Your task to perform on an android device: Go to Android settings Image 0: 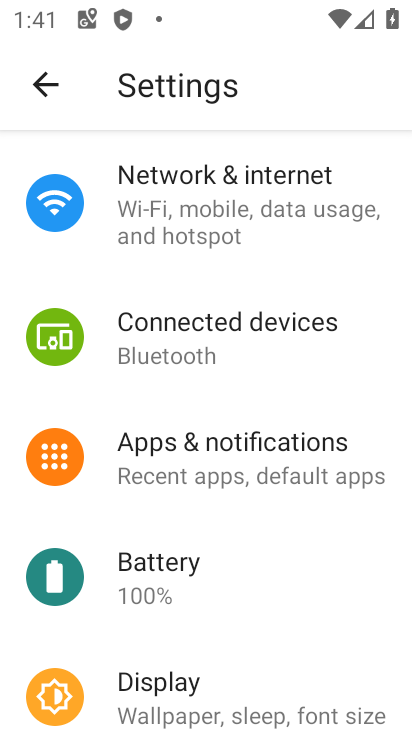
Step 0: drag from (190, 679) to (301, 184)
Your task to perform on an android device: Go to Android settings Image 1: 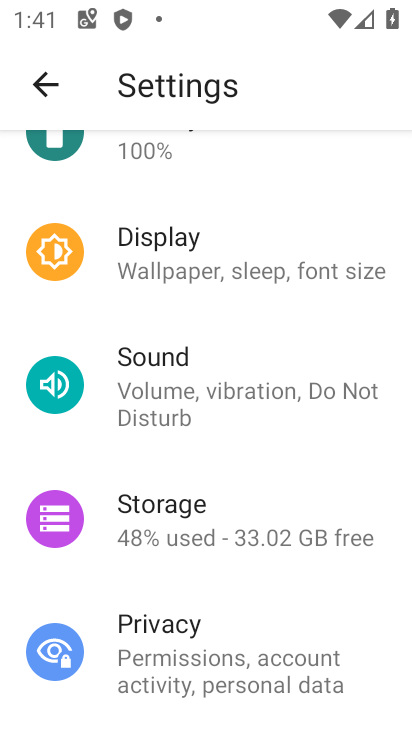
Step 1: drag from (226, 633) to (240, 319)
Your task to perform on an android device: Go to Android settings Image 2: 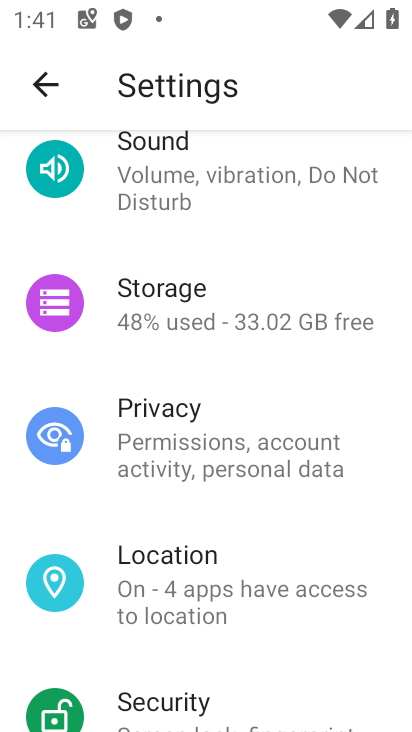
Step 2: drag from (242, 558) to (305, 42)
Your task to perform on an android device: Go to Android settings Image 3: 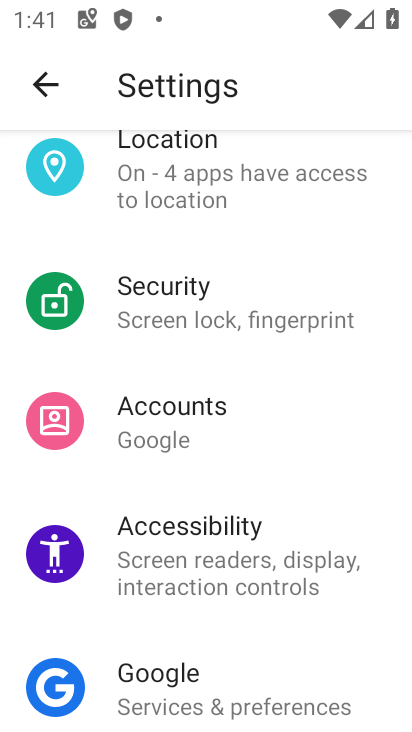
Step 3: drag from (217, 648) to (235, 239)
Your task to perform on an android device: Go to Android settings Image 4: 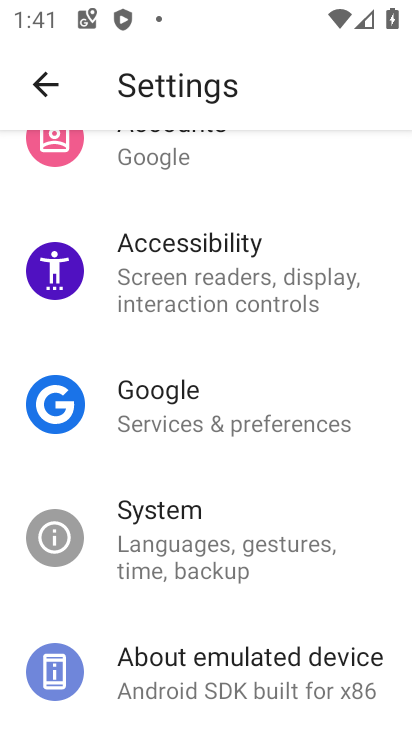
Step 4: drag from (211, 653) to (277, 272)
Your task to perform on an android device: Go to Android settings Image 5: 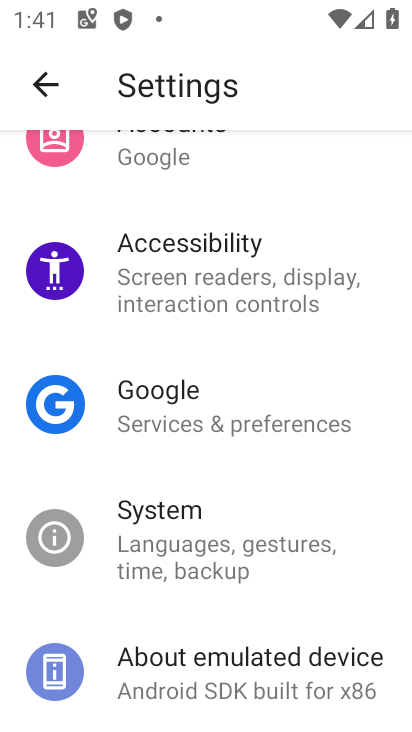
Step 5: click (208, 663)
Your task to perform on an android device: Go to Android settings Image 6: 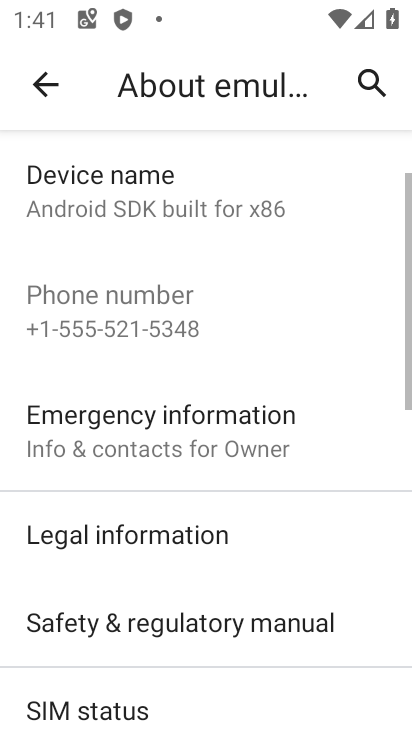
Step 6: drag from (210, 661) to (289, 284)
Your task to perform on an android device: Go to Android settings Image 7: 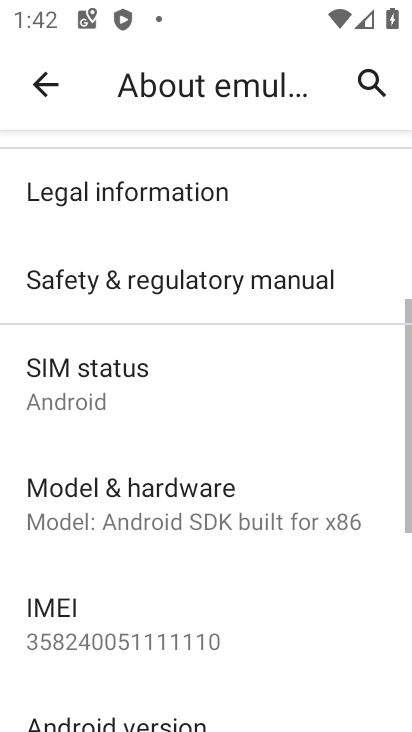
Step 7: drag from (195, 534) to (328, 150)
Your task to perform on an android device: Go to Android settings Image 8: 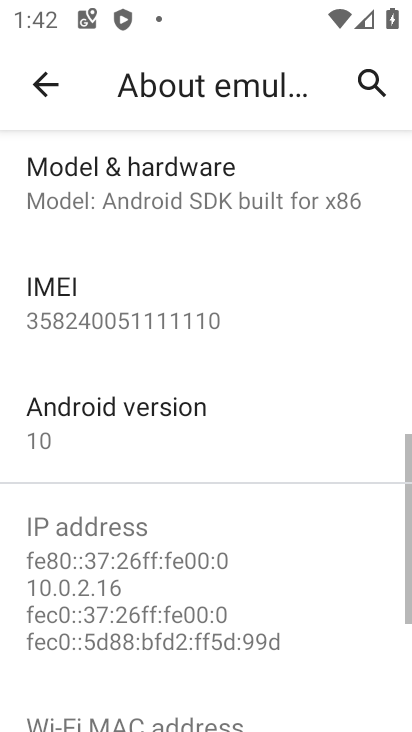
Step 8: click (181, 431)
Your task to perform on an android device: Go to Android settings Image 9: 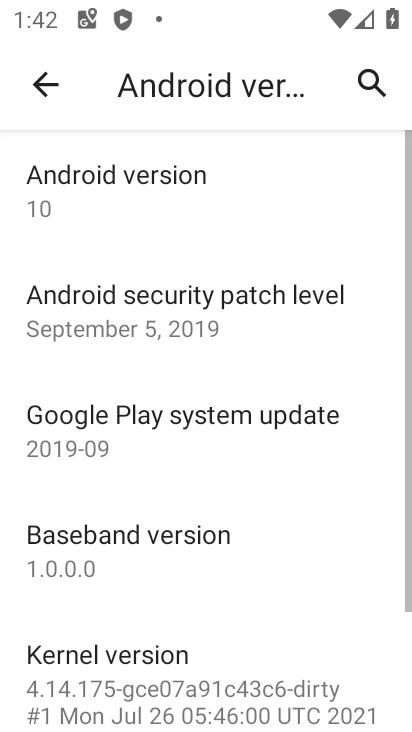
Step 9: task complete